Your task to perform on an android device: Find coffee shops on Maps Image 0: 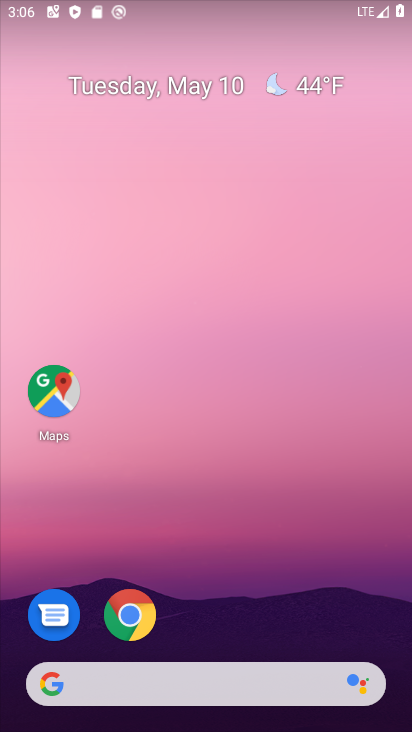
Step 0: drag from (229, 584) to (324, 110)
Your task to perform on an android device: Find coffee shops on Maps Image 1: 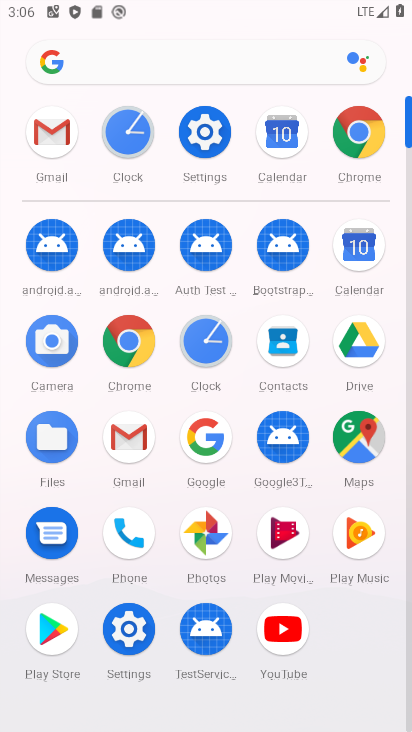
Step 1: click (352, 430)
Your task to perform on an android device: Find coffee shops on Maps Image 2: 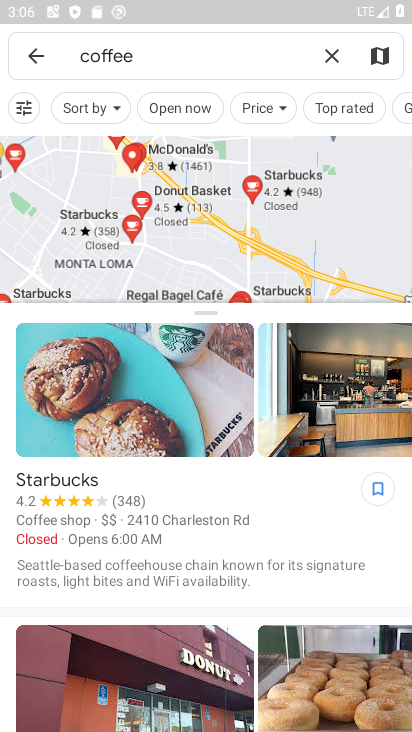
Step 2: task complete